Your task to perform on an android device: Go to Google Image 0: 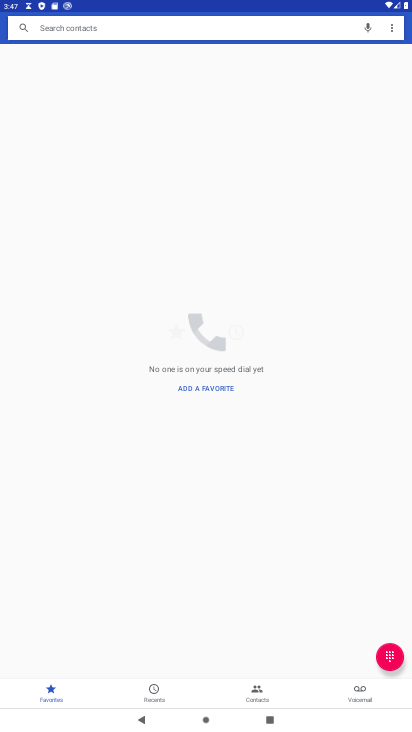
Step 0: press home button
Your task to perform on an android device: Go to Google Image 1: 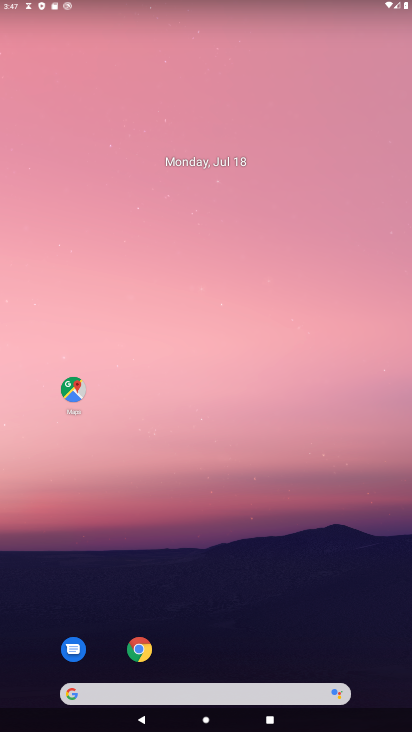
Step 1: drag from (254, 589) to (285, 82)
Your task to perform on an android device: Go to Google Image 2: 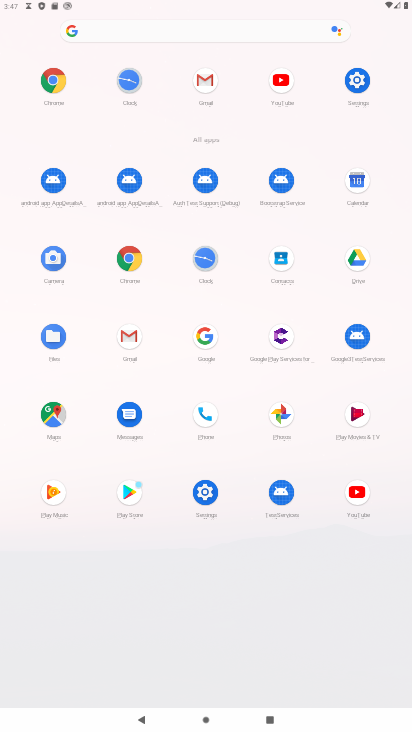
Step 2: click (197, 335)
Your task to perform on an android device: Go to Google Image 3: 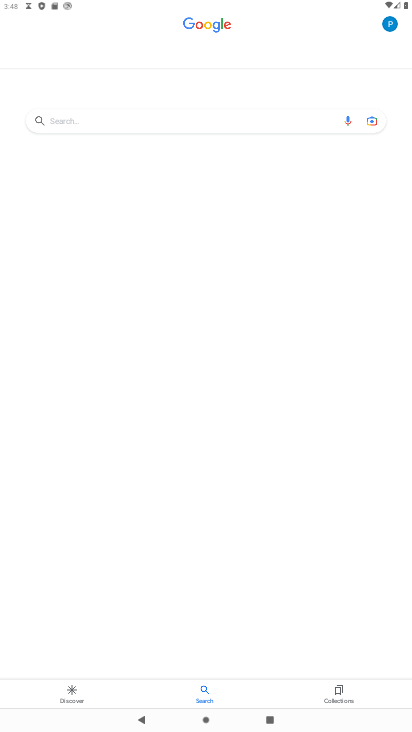
Step 3: task complete